Your task to perform on an android device: Open eBay Image 0: 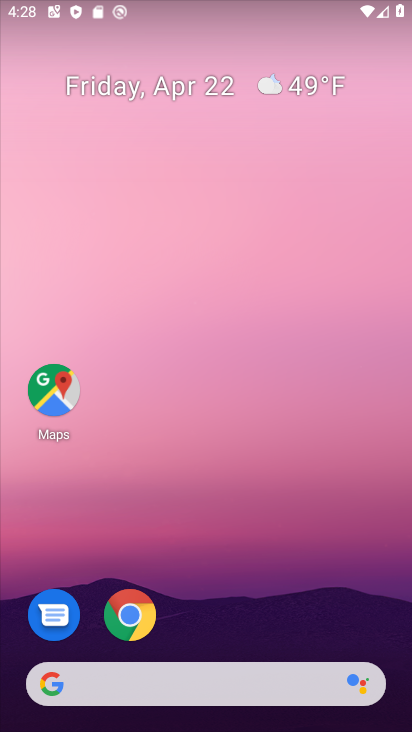
Step 0: click (203, 676)
Your task to perform on an android device: Open eBay Image 1: 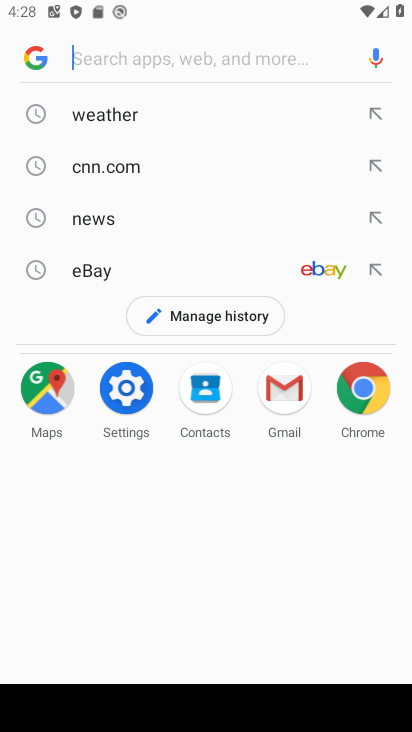
Step 1: click (85, 268)
Your task to perform on an android device: Open eBay Image 2: 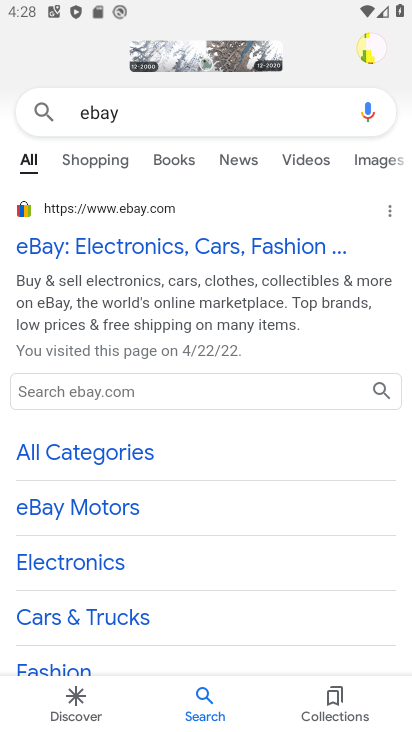
Step 2: click (77, 249)
Your task to perform on an android device: Open eBay Image 3: 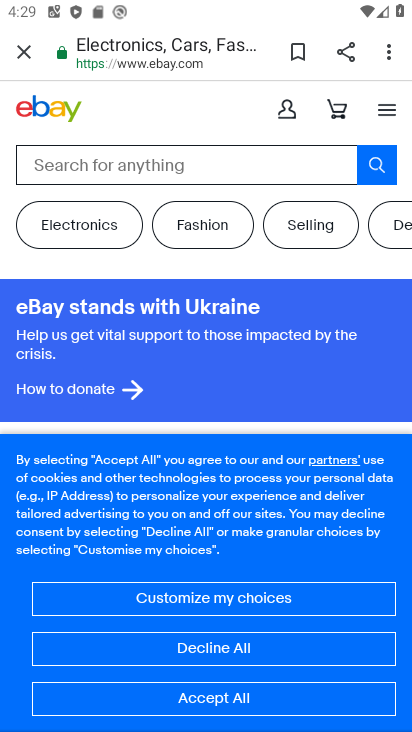
Step 3: task complete